Your task to perform on an android device: allow cookies in the chrome app Image 0: 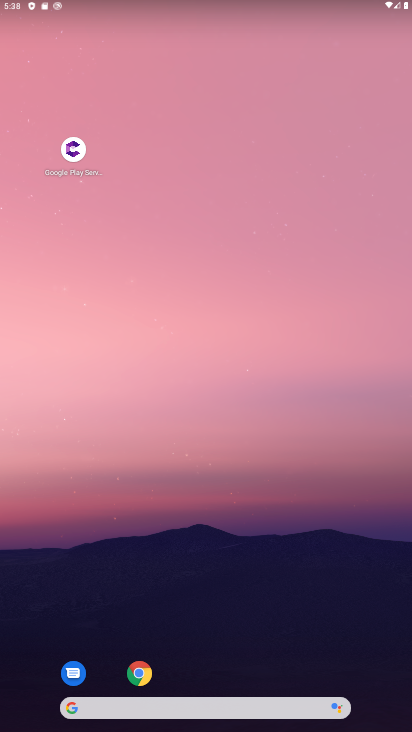
Step 0: click (137, 680)
Your task to perform on an android device: allow cookies in the chrome app Image 1: 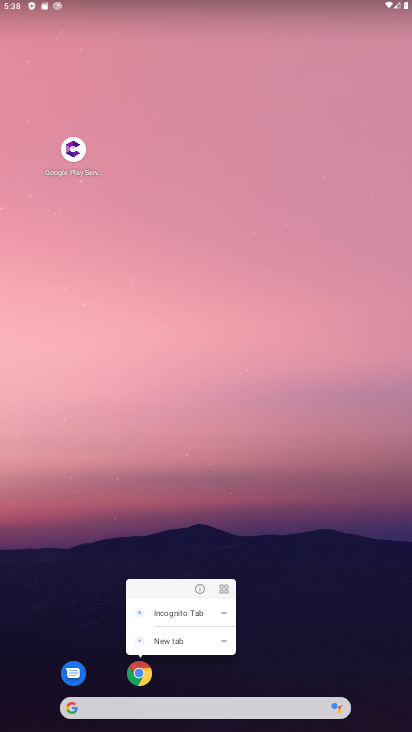
Step 1: click (304, 611)
Your task to perform on an android device: allow cookies in the chrome app Image 2: 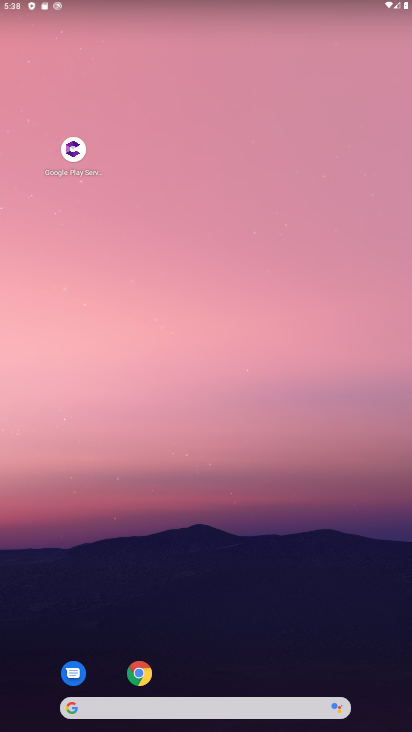
Step 2: click (136, 672)
Your task to perform on an android device: allow cookies in the chrome app Image 3: 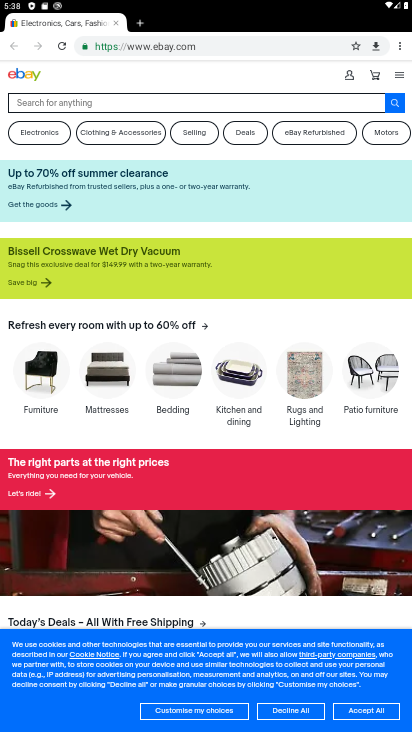
Step 3: click (397, 44)
Your task to perform on an android device: allow cookies in the chrome app Image 4: 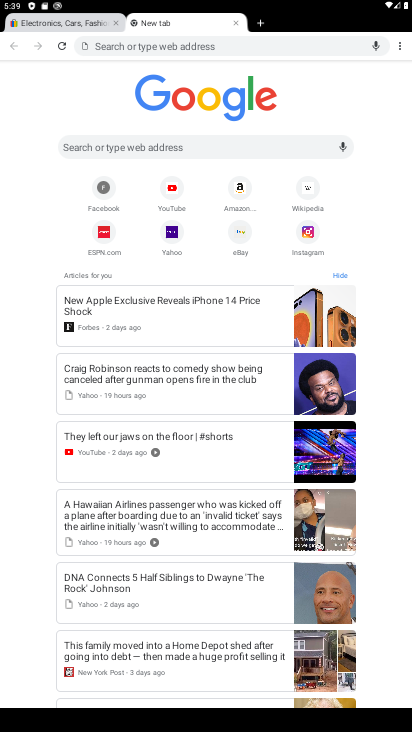
Step 4: click (399, 46)
Your task to perform on an android device: allow cookies in the chrome app Image 5: 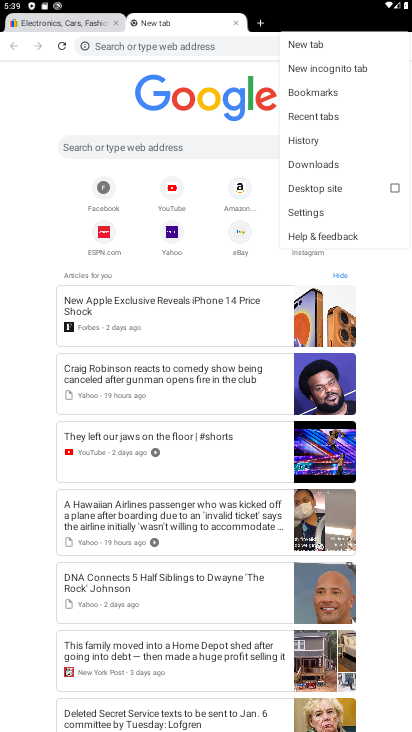
Step 5: click (312, 212)
Your task to perform on an android device: allow cookies in the chrome app Image 6: 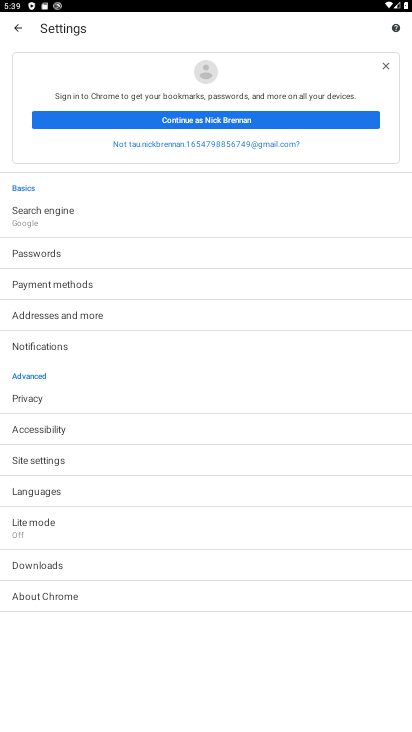
Step 6: click (44, 461)
Your task to perform on an android device: allow cookies in the chrome app Image 7: 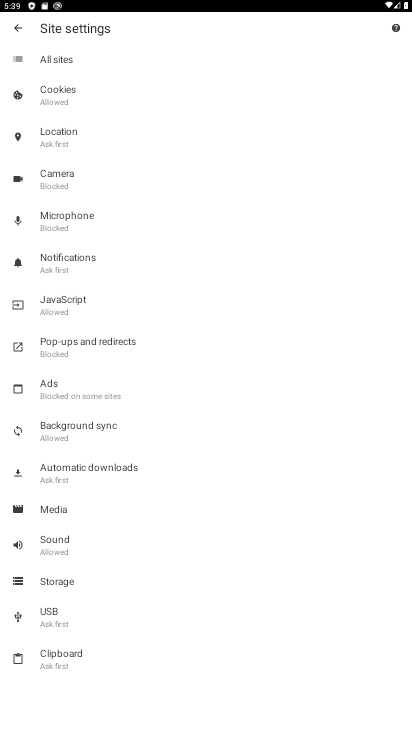
Step 7: click (52, 104)
Your task to perform on an android device: allow cookies in the chrome app Image 8: 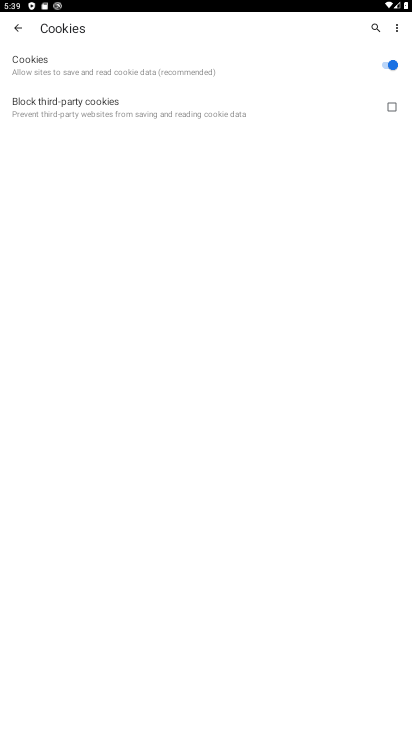
Step 8: task complete